Your task to perform on an android device: Show me popular games on the Play Store Image 0: 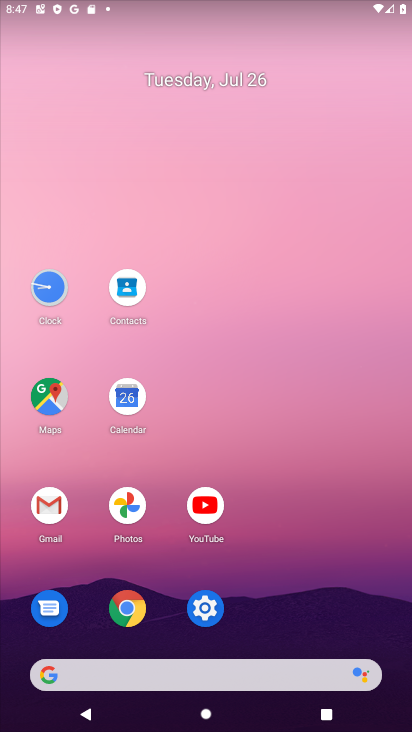
Step 0: drag from (300, 572) to (142, 90)
Your task to perform on an android device: Show me popular games on the Play Store Image 1: 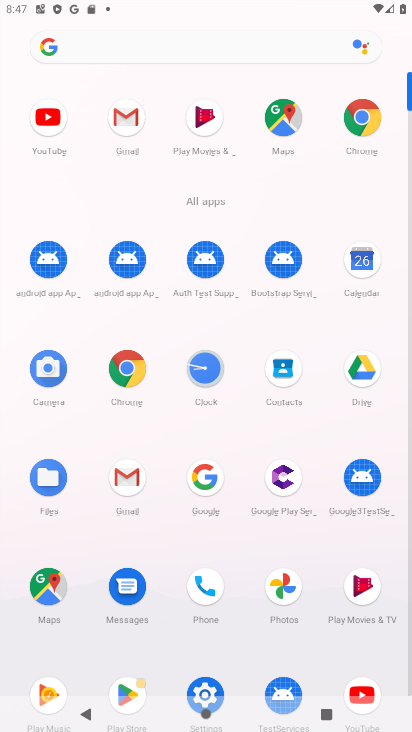
Step 1: click (124, 684)
Your task to perform on an android device: Show me popular games on the Play Store Image 2: 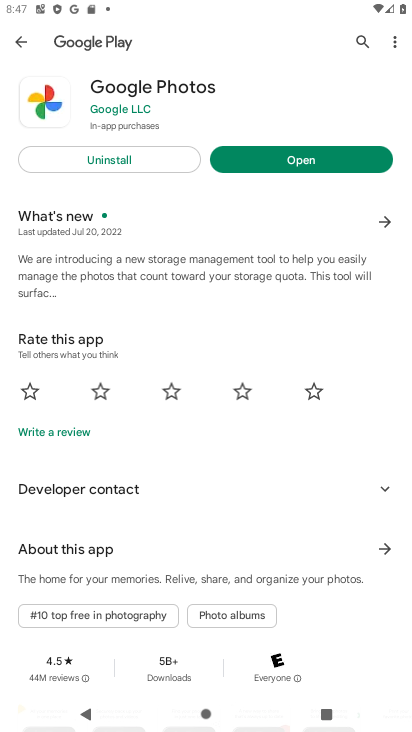
Step 2: click (17, 41)
Your task to perform on an android device: Show me popular games on the Play Store Image 3: 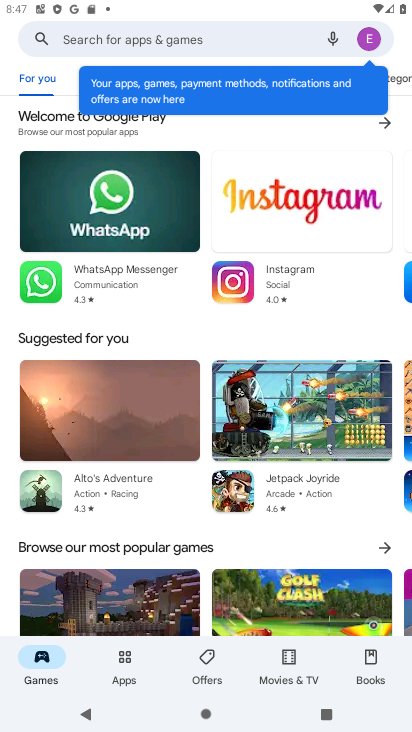
Step 3: task complete